Your task to perform on an android device: change keyboard looks Image 0: 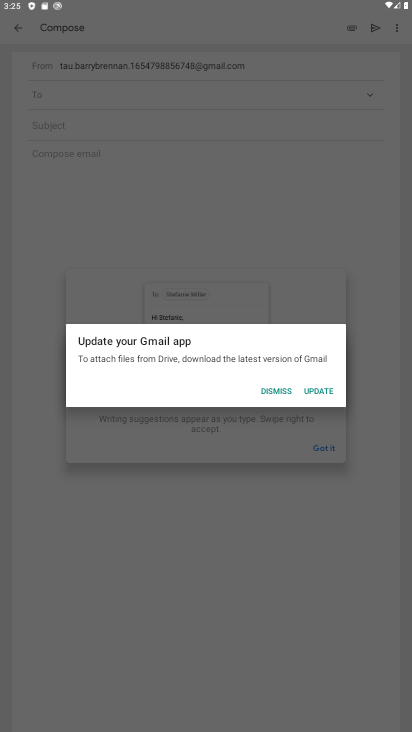
Step 0: click (275, 385)
Your task to perform on an android device: change keyboard looks Image 1: 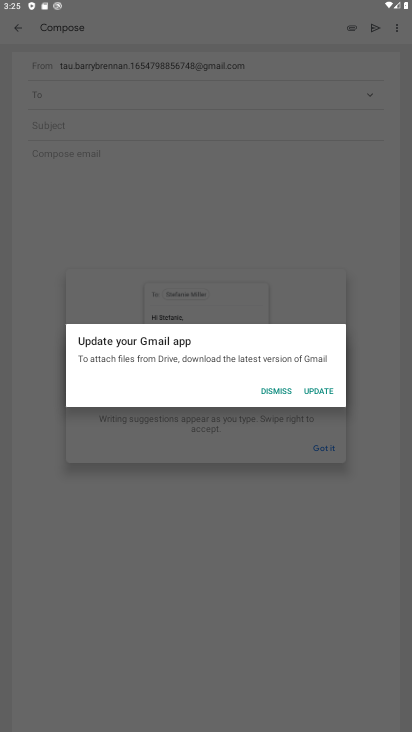
Step 1: click (294, 388)
Your task to perform on an android device: change keyboard looks Image 2: 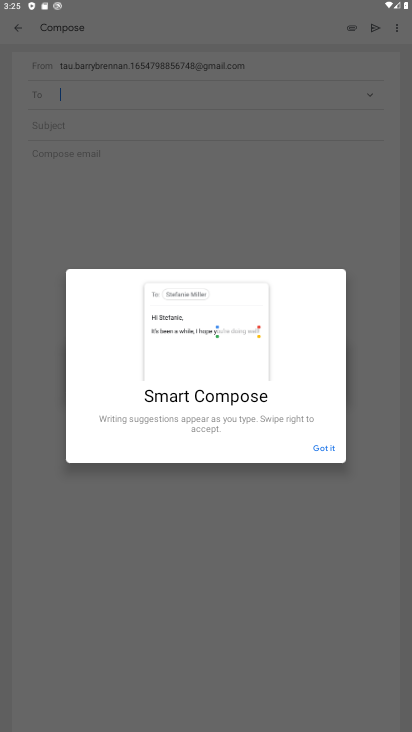
Step 2: press back button
Your task to perform on an android device: change keyboard looks Image 3: 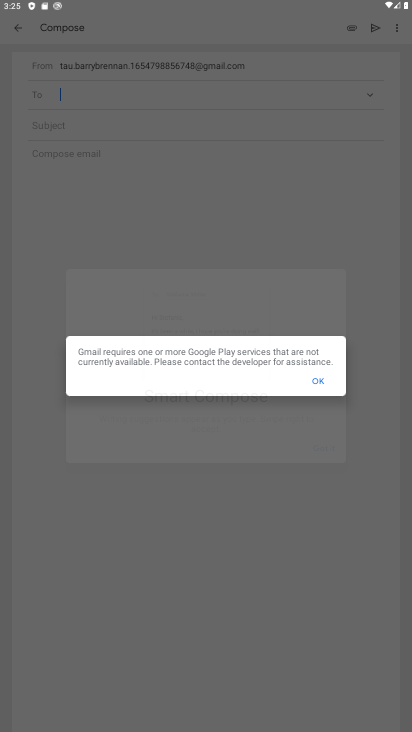
Step 3: press back button
Your task to perform on an android device: change keyboard looks Image 4: 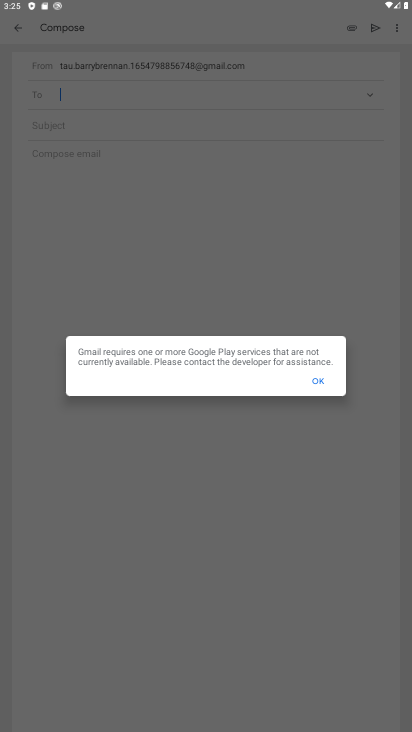
Step 4: press home button
Your task to perform on an android device: change keyboard looks Image 5: 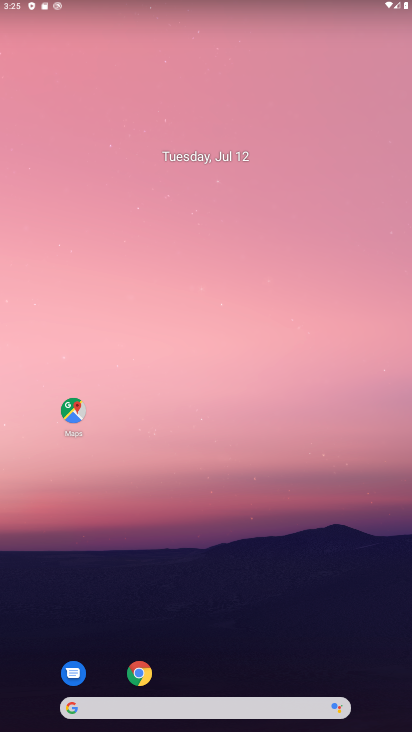
Step 5: drag from (161, 480) to (157, 121)
Your task to perform on an android device: change keyboard looks Image 6: 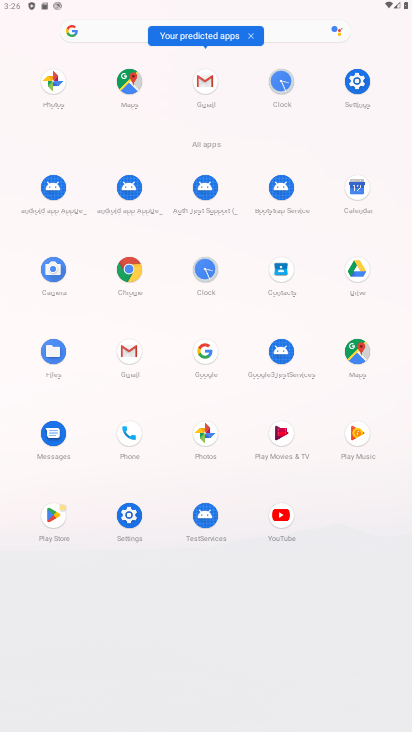
Step 6: drag from (235, 538) to (140, 75)
Your task to perform on an android device: change keyboard looks Image 7: 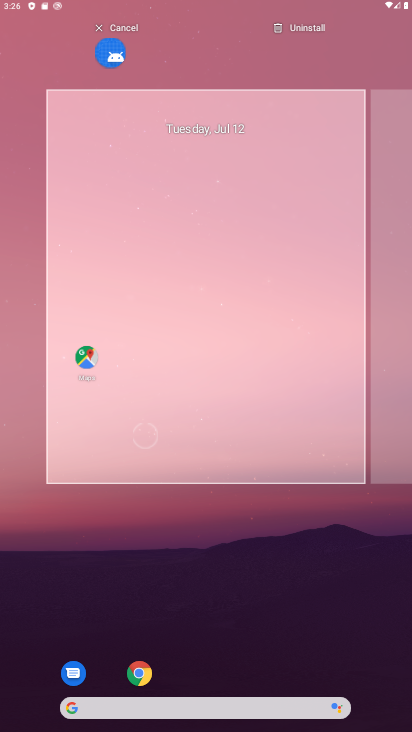
Step 7: drag from (111, 242) to (89, 7)
Your task to perform on an android device: change keyboard looks Image 8: 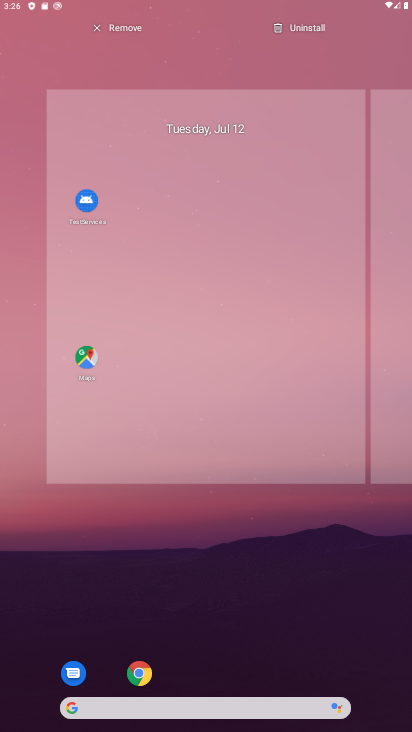
Step 8: click (180, 28)
Your task to perform on an android device: change keyboard looks Image 9: 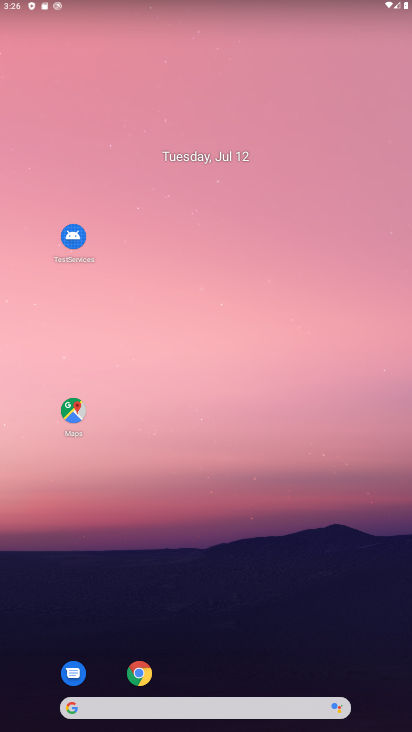
Step 9: drag from (354, 60) to (370, 100)
Your task to perform on an android device: change keyboard looks Image 10: 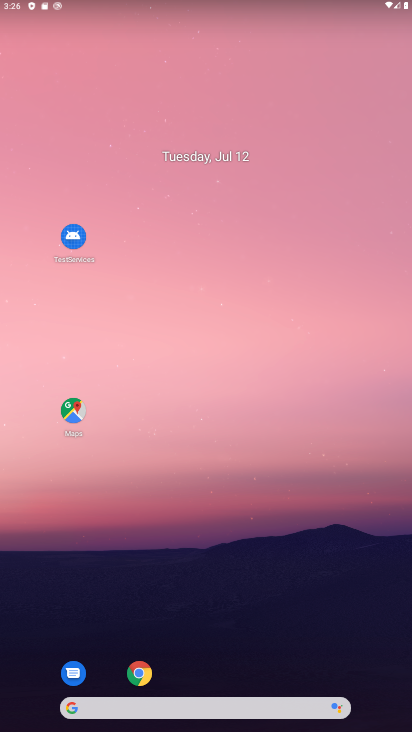
Step 10: click (365, 93)
Your task to perform on an android device: change keyboard looks Image 11: 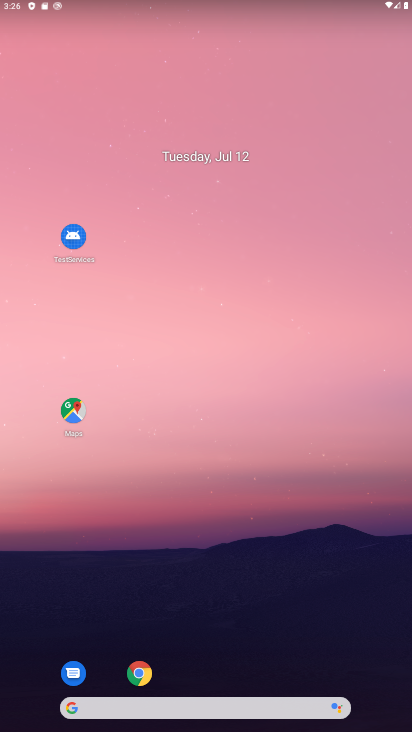
Step 11: click (366, 89)
Your task to perform on an android device: change keyboard looks Image 12: 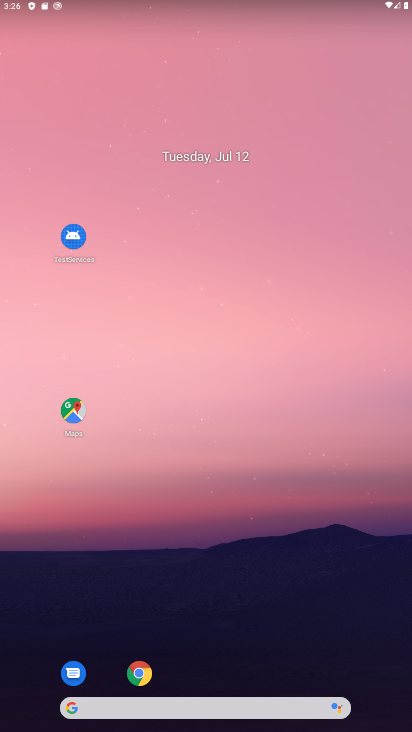
Step 12: click (364, 96)
Your task to perform on an android device: change keyboard looks Image 13: 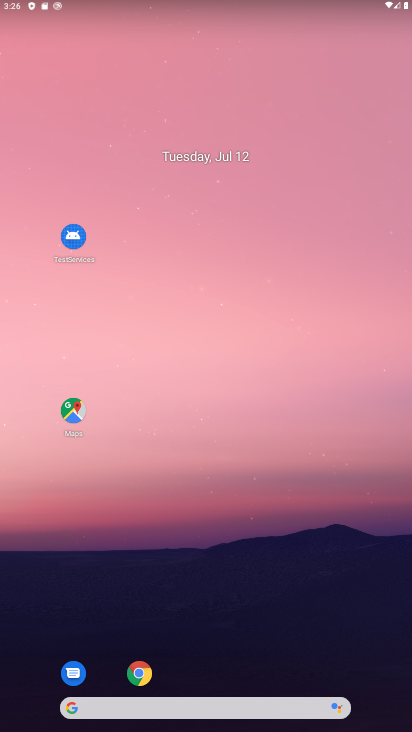
Step 13: task complete